Your task to perform on an android device: Go to CNN.com Image 0: 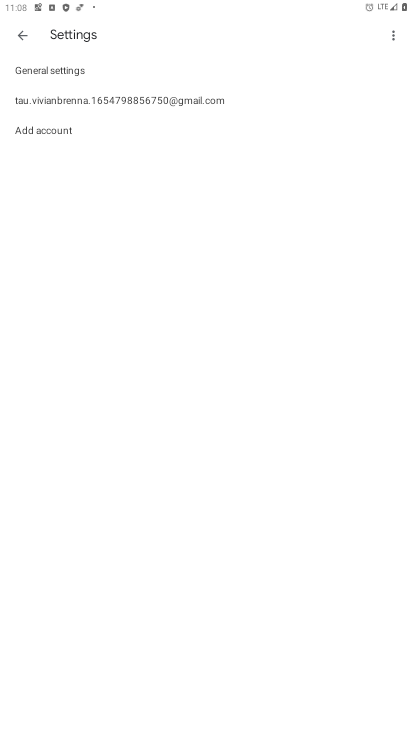
Step 0: press home button
Your task to perform on an android device: Go to CNN.com Image 1: 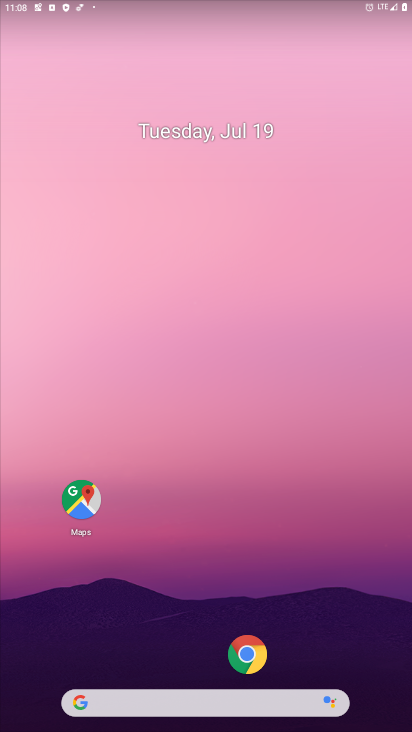
Step 1: click (232, 640)
Your task to perform on an android device: Go to CNN.com Image 2: 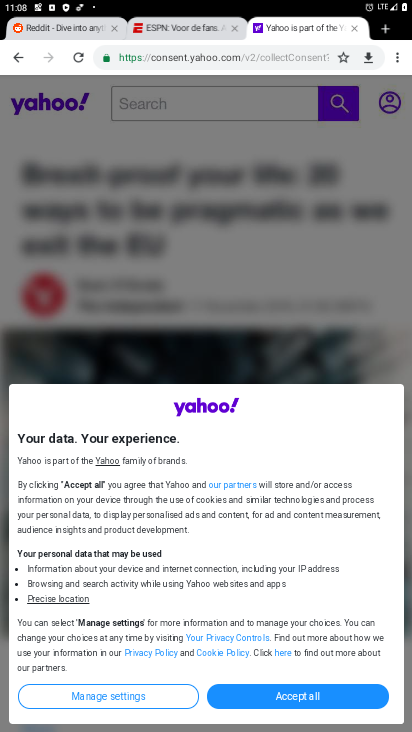
Step 2: click (386, 26)
Your task to perform on an android device: Go to CNN.com Image 3: 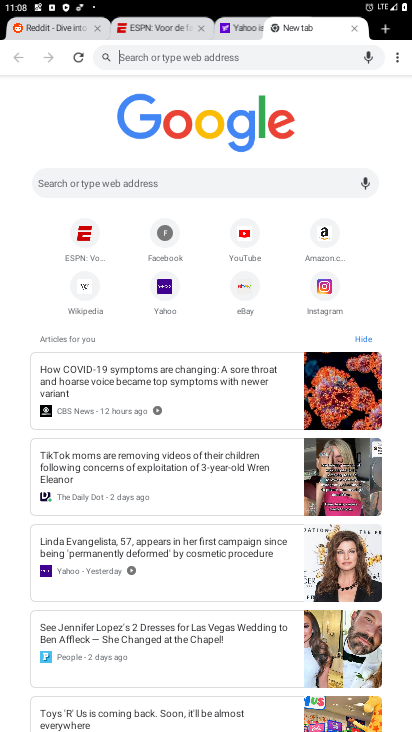
Step 3: click (218, 185)
Your task to perform on an android device: Go to CNN.com Image 4: 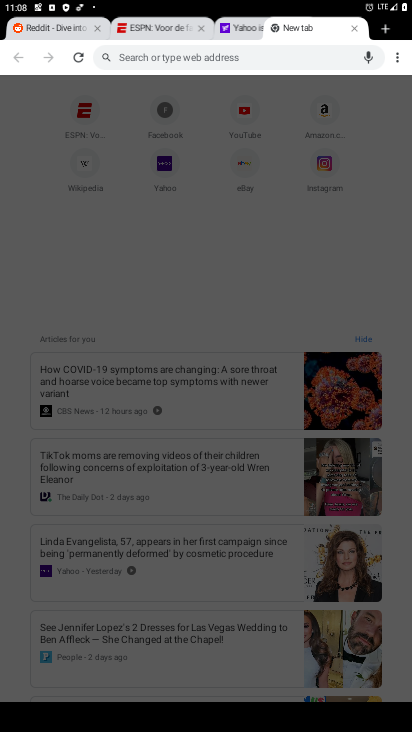
Step 4: type "cnn.com"
Your task to perform on an android device: Go to CNN.com Image 5: 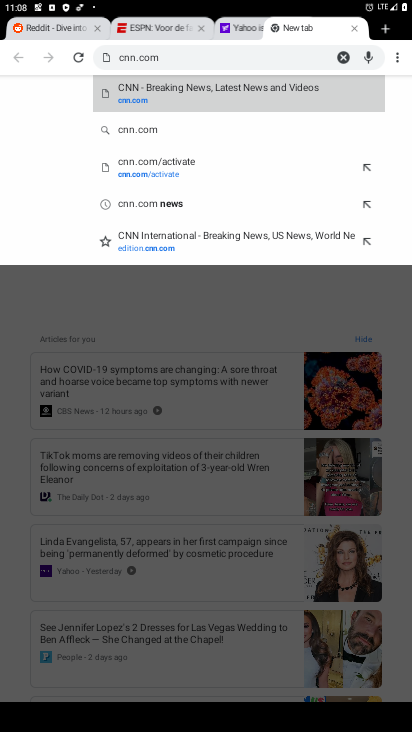
Step 5: click (198, 101)
Your task to perform on an android device: Go to CNN.com Image 6: 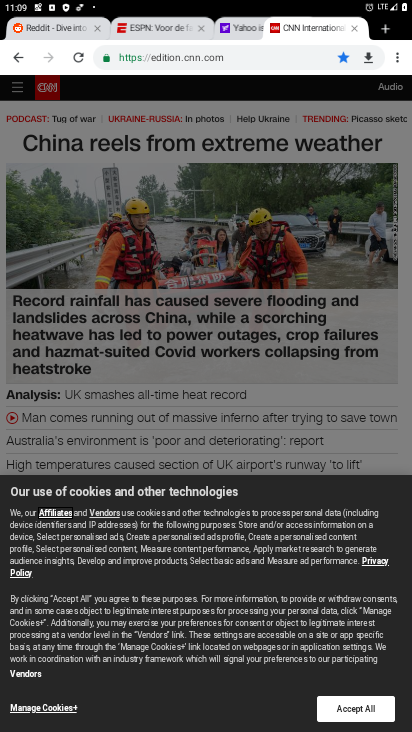
Step 6: task complete